Your task to perform on an android device: turn off notifications in google photos Image 0: 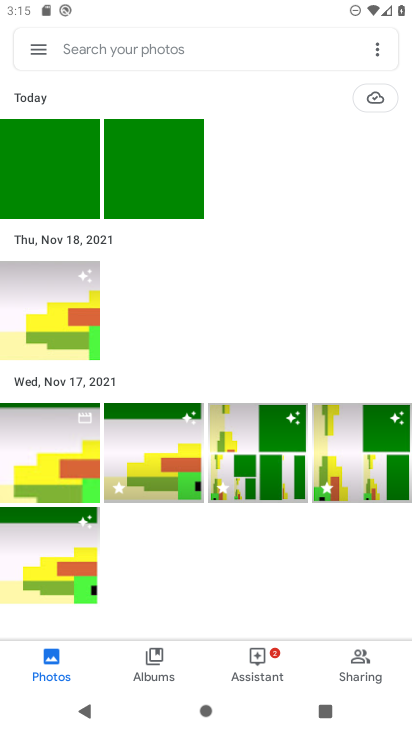
Step 0: press home button
Your task to perform on an android device: turn off notifications in google photos Image 1: 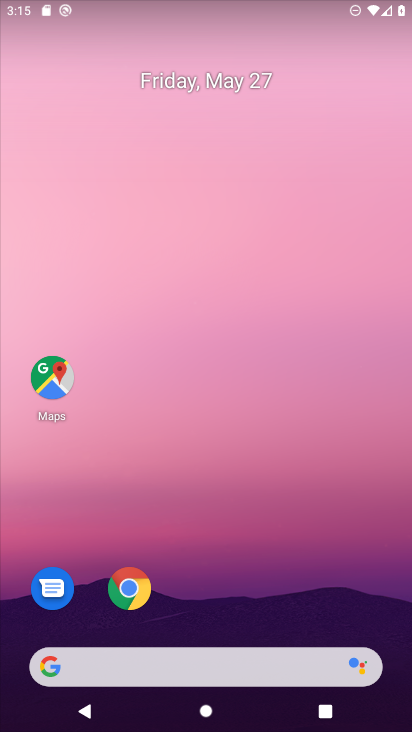
Step 1: drag from (279, 612) to (281, 269)
Your task to perform on an android device: turn off notifications in google photos Image 2: 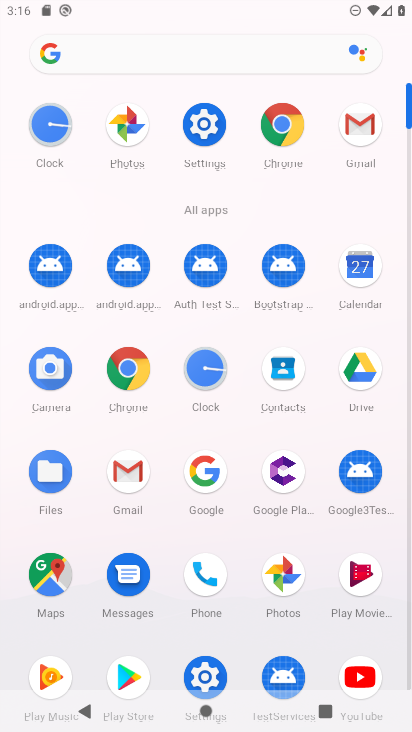
Step 2: click (287, 579)
Your task to perform on an android device: turn off notifications in google photos Image 3: 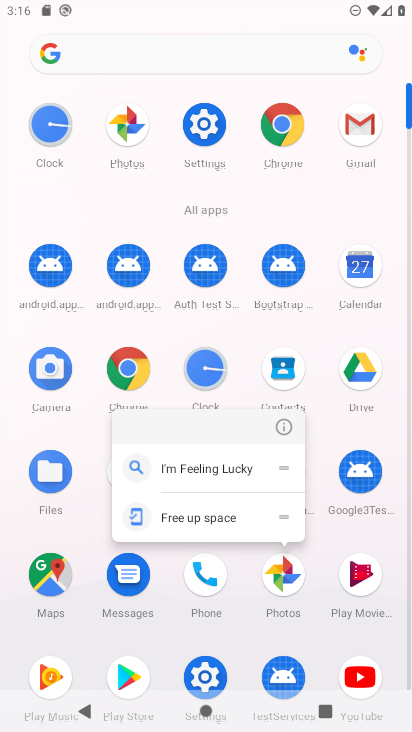
Step 3: click (281, 422)
Your task to perform on an android device: turn off notifications in google photos Image 4: 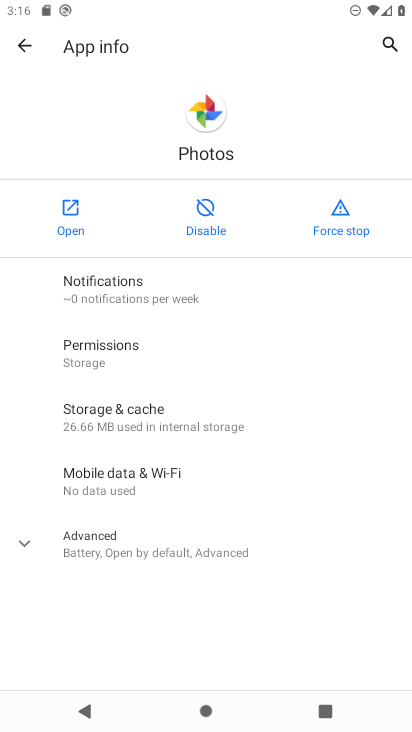
Step 4: click (139, 279)
Your task to perform on an android device: turn off notifications in google photos Image 5: 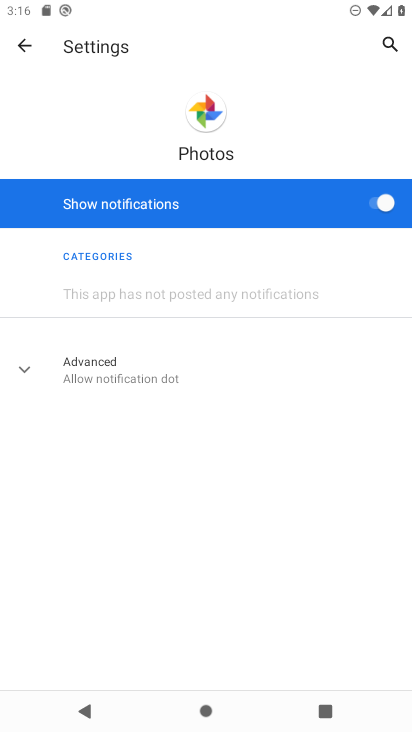
Step 5: click (389, 194)
Your task to perform on an android device: turn off notifications in google photos Image 6: 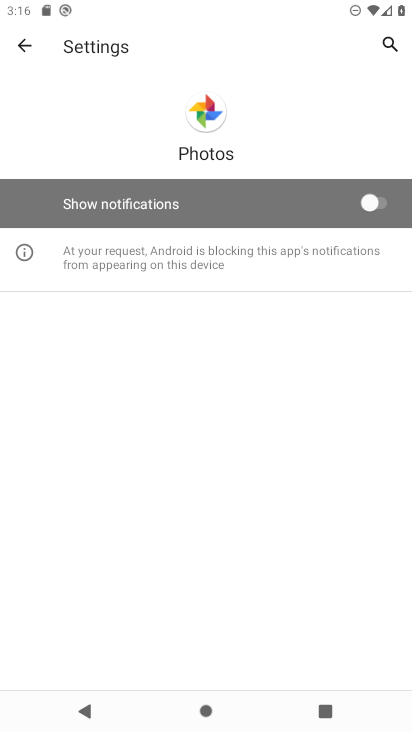
Step 6: task complete